Your task to perform on an android device: Open notification settings Image 0: 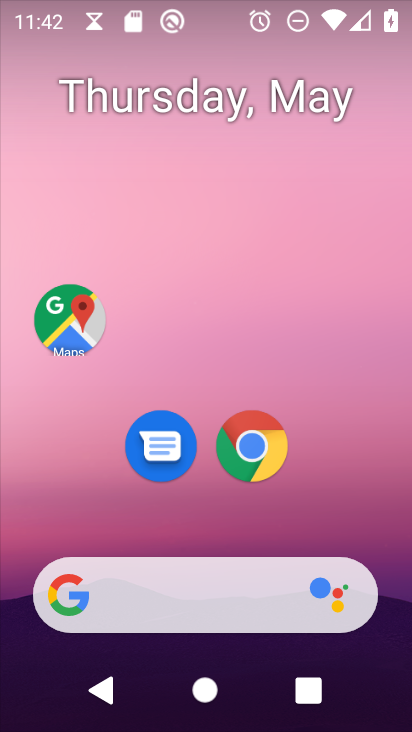
Step 0: drag from (259, 636) to (250, 349)
Your task to perform on an android device: Open notification settings Image 1: 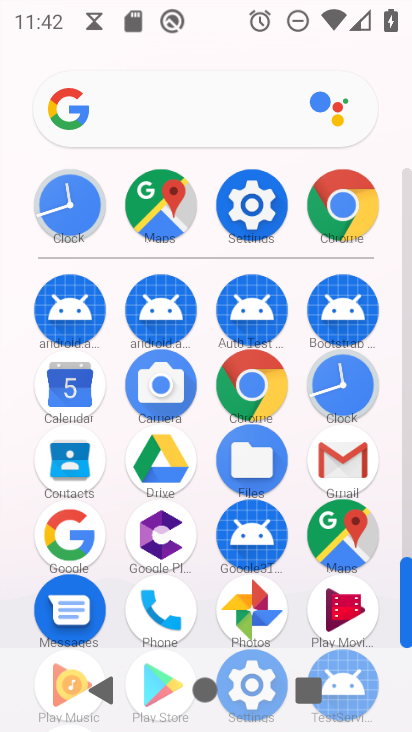
Step 1: click (260, 228)
Your task to perform on an android device: Open notification settings Image 2: 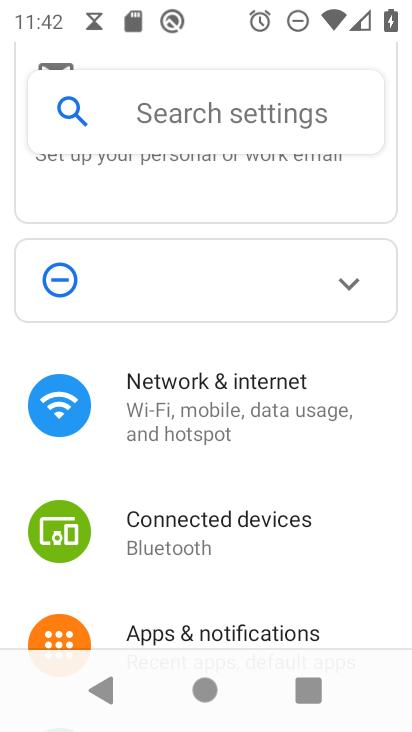
Step 2: click (251, 135)
Your task to perform on an android device: Open notification settings Image 3: 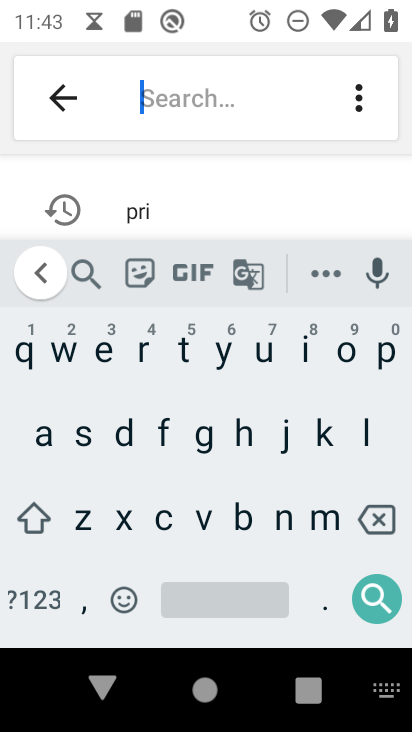
Step 3: click (289, 517)
Your task to perform on an android device: Open notification settings Image 4: 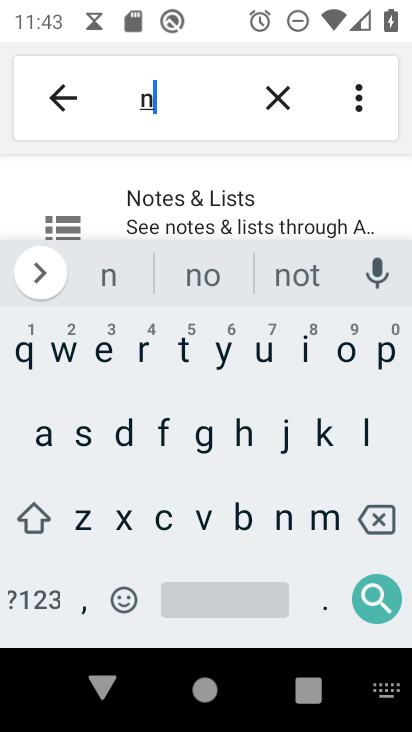
Step 4: click (336, 362)
Your task to perform on an android device: Open notification settings Image 5: 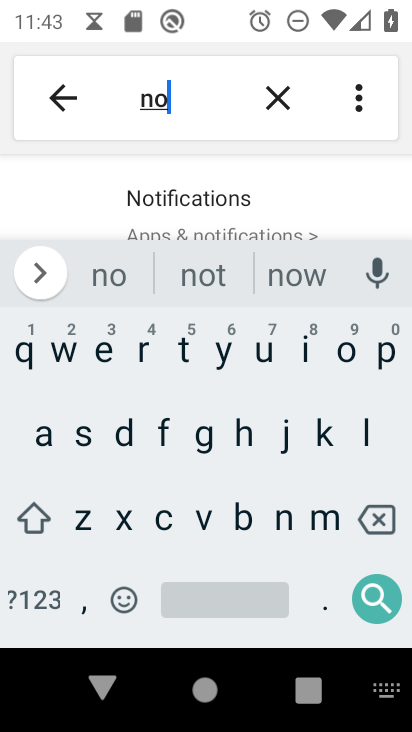
Step 5: click (218, 203)
Your task to perform on an android device: Open notification settings Image 6: 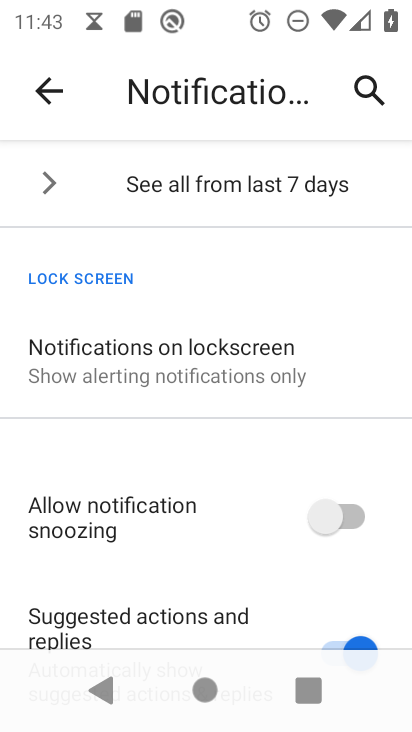
Step 6: click (154, 358)
Your task to perform on an android device: Open notification settings Image 7: 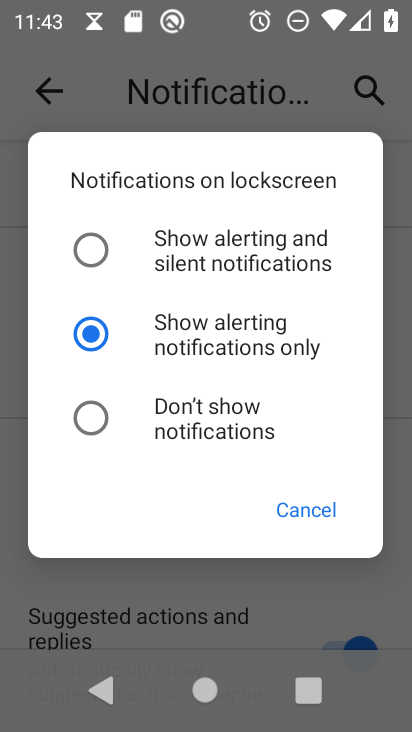
Step 7: task complete